Your task to perform on an android device: turn notification dots on Image 0: 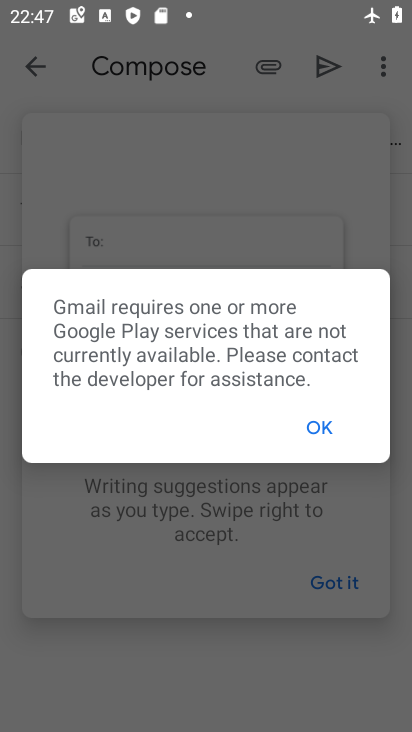
Step 0: press home button
Your task to perform on an android device: turn notification dots on Image 1: 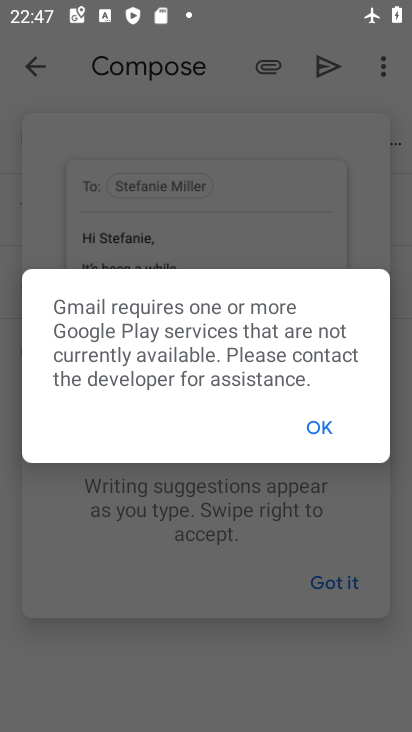
Step 1: press home button
Your task to perform on an android device: turn notification dots on Image 2: 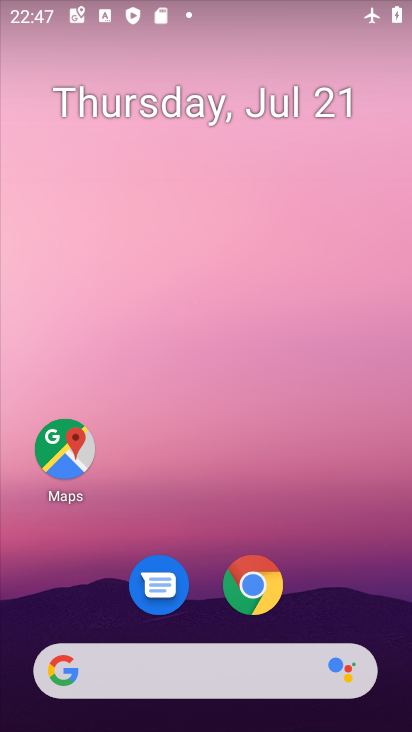
Step 2: drag from (219, 531) to (315, 0)
Your task to perform on an android device: turn notification dots on Image 3: 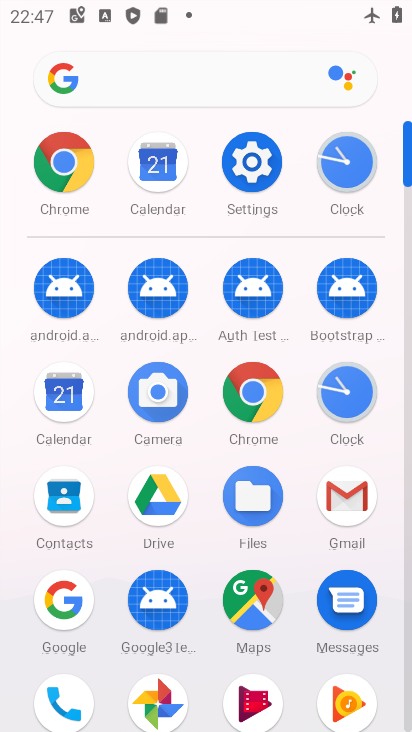
Step 3: click (255, 162)
Your task to perform on an android device: turn notification dots on Image 4: 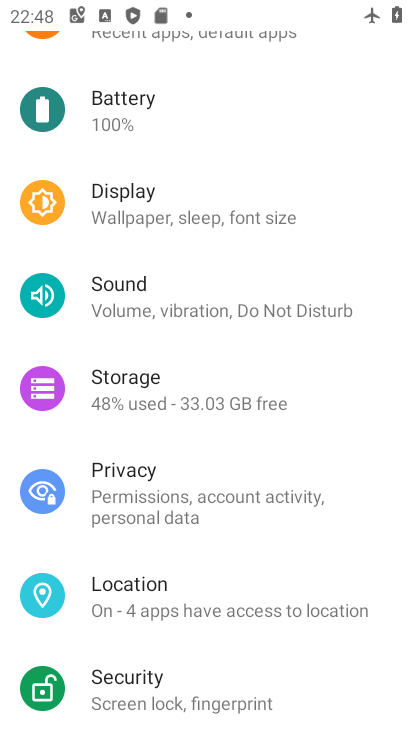
Step 4: drag from (213, 172) to (194, 571)
Your task to perform on an android device: turn notification dots on Image 5: 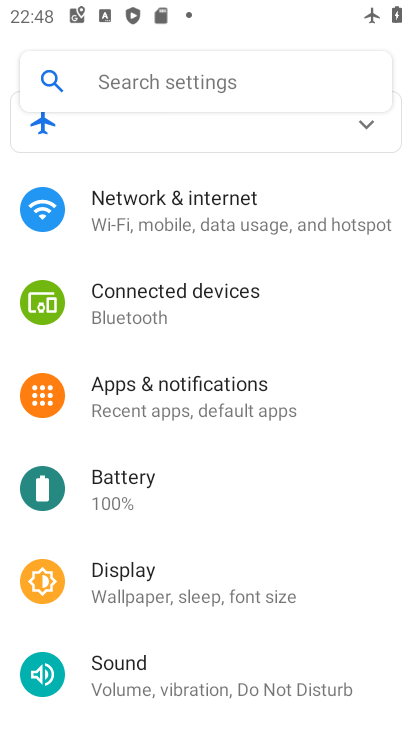
Step 5: click (215, 400)
Your task to perform on an android device: turn notification dots on Image 6: 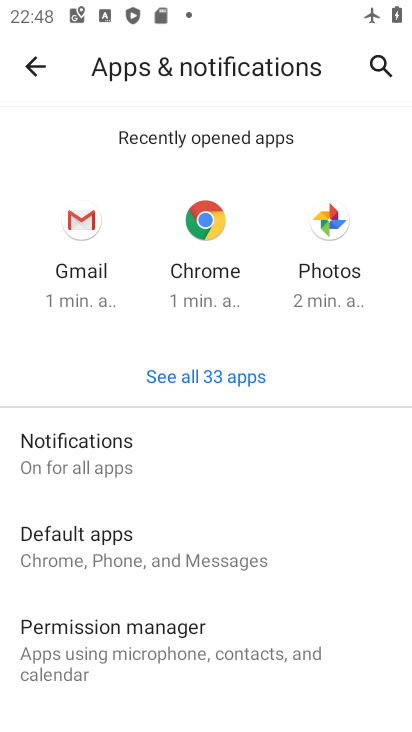
Step 6: click (116, 458)
Your task to perform on an android device: turn notification dots on Image 7: 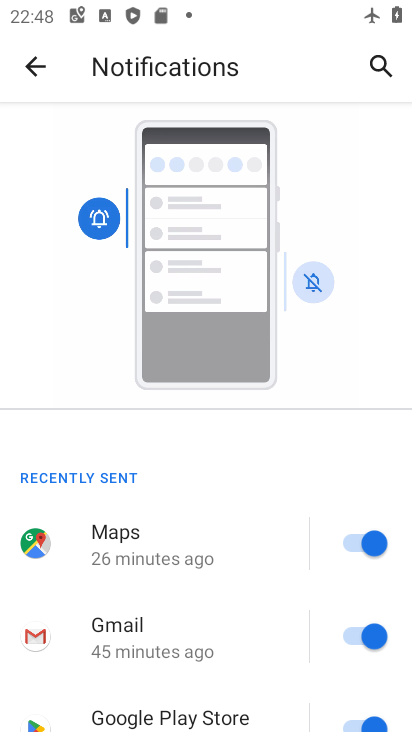
Step 7: drag from (219, 599) to (235, 97)
Your task to perform on an android device: turn notification dots on Image 8: 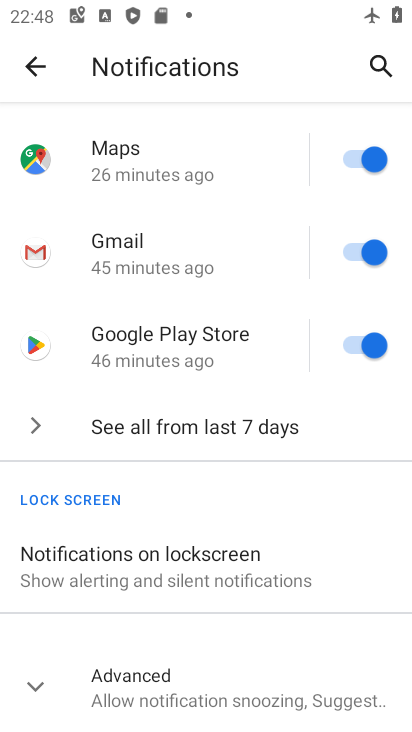
Step 8: drag from (189, 490) to (211, 166)
Your task to perform on an android device: turn notification dots on Image 9: 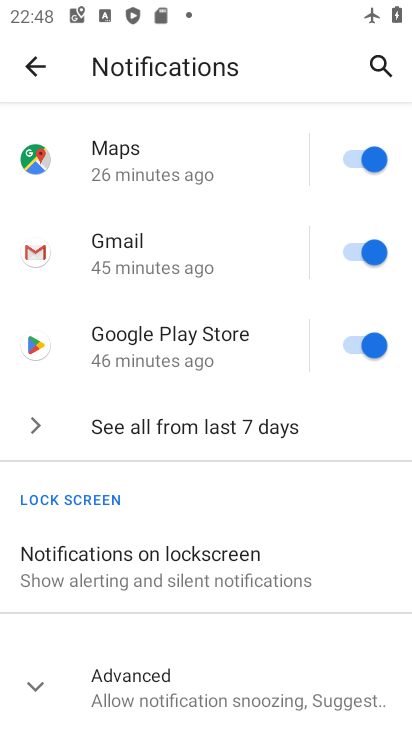
Step 9: click (37, 685)
Your task to perform on an android device: turn notification dots on Image 10: 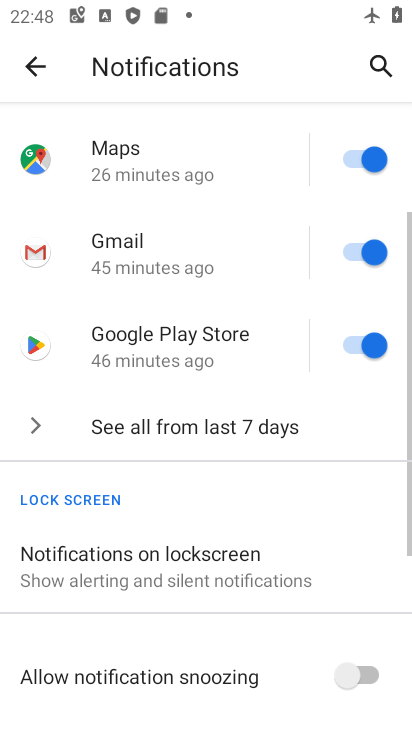
Step 10: drag from (177, 638) to (208, 197)
Your task to perform on an android device: turn notification dots on Image 11: 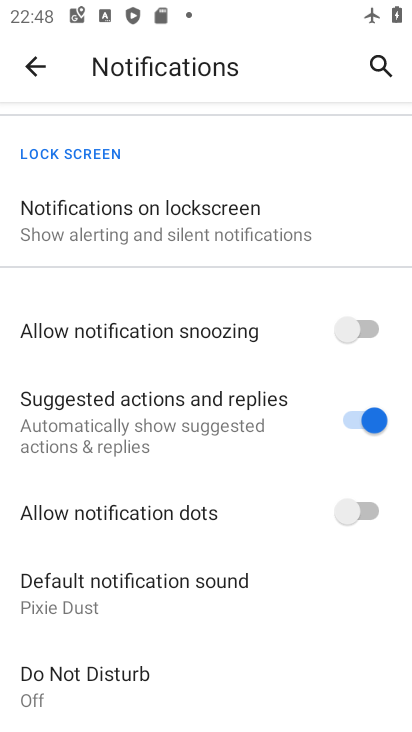
Step 11: click (367, 507)
Your task to perform on an android device: turn notification dots on Image 12: 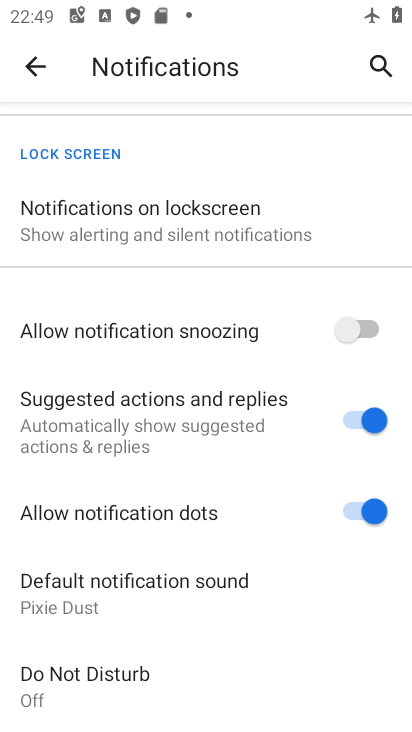
Step 12: task complete